Your task to perform on an android device: turn off location Image 0: 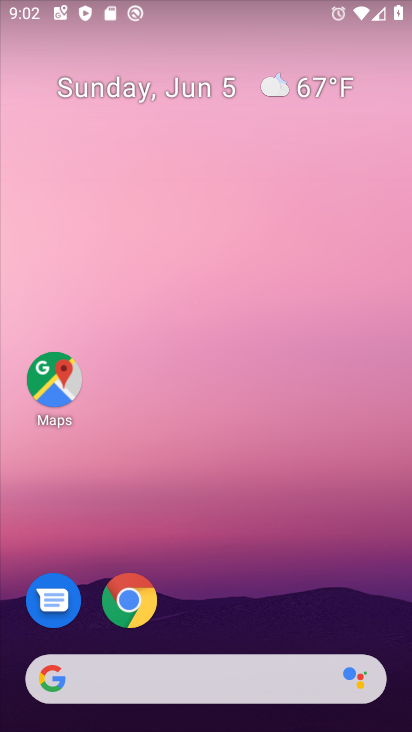
Step 0: drag from (383, 619) to (326, 107)
Your task to perform on an android device: turn off location Image 1: 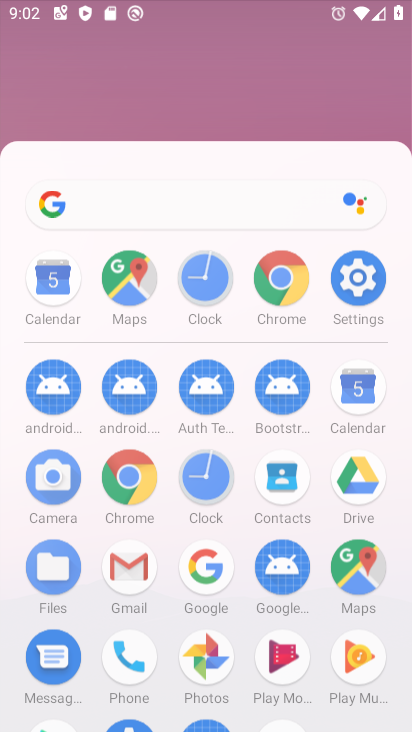
Step 1: click (297, 35)
Your task to perform on an android device: turn off location Image 2: 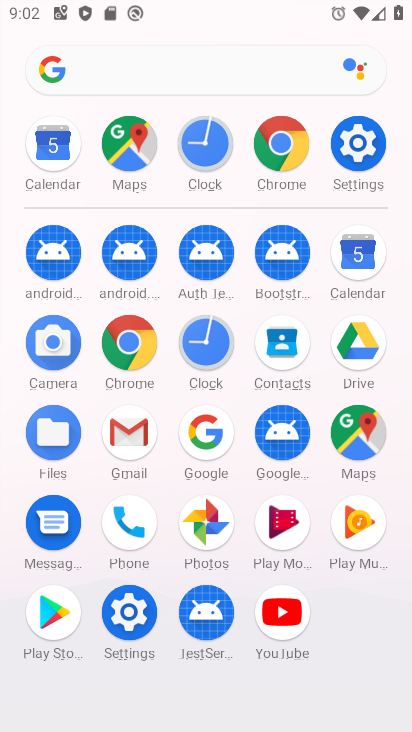
Step 2: click (115, 615)
Your task to perform on an android device: turn off location Image 3: 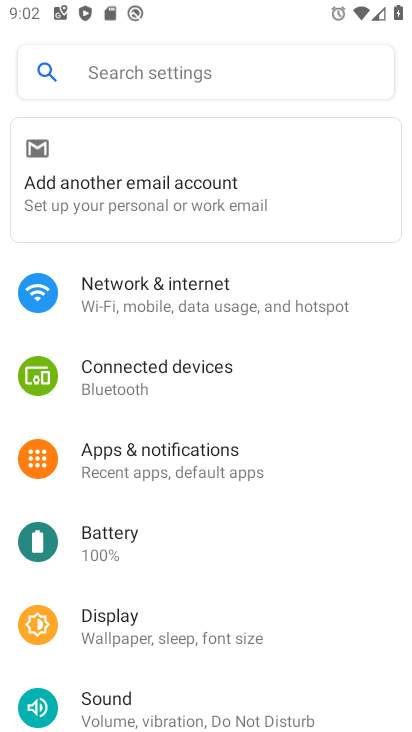
Step 3: click (159, 657)
Your task to perform on an android device: turn off location Image 4: 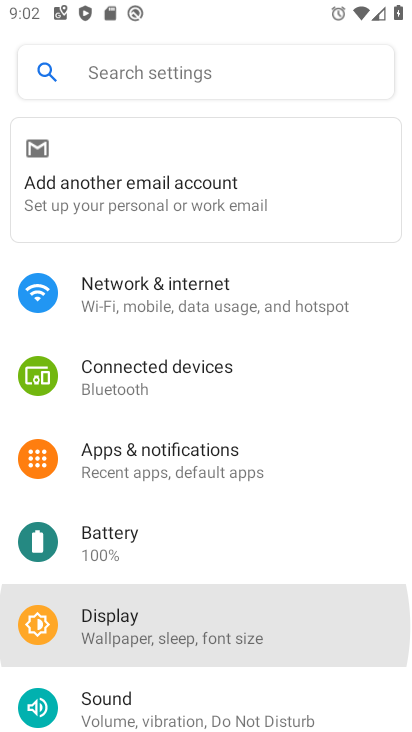
Step 4: drag from (202, 457) to (199, 346)
Your task to perform on an android device: turn off location Image 5: 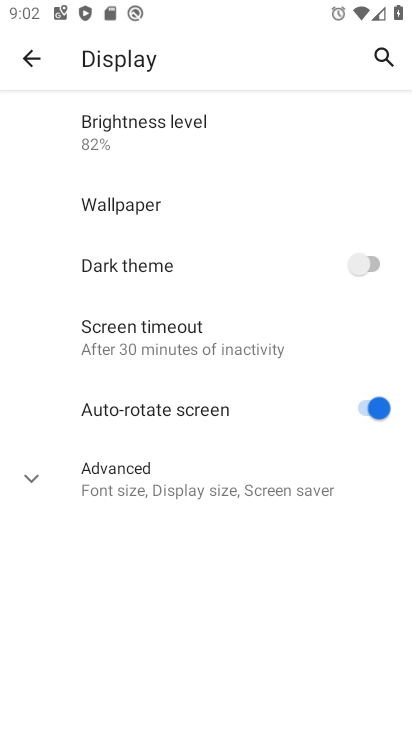
Step 5: press home button
Your task to perform on an android device: turn off location Image 6: 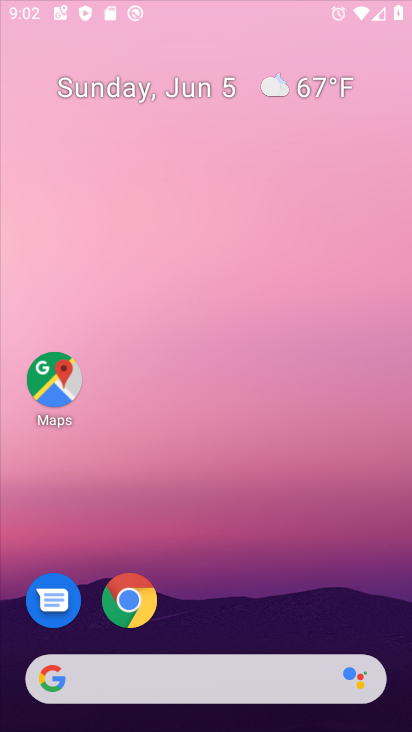
Step 6: drag from (357, 638) to (263, 32)
Your task to perform on an android device: turn off location Image 7: 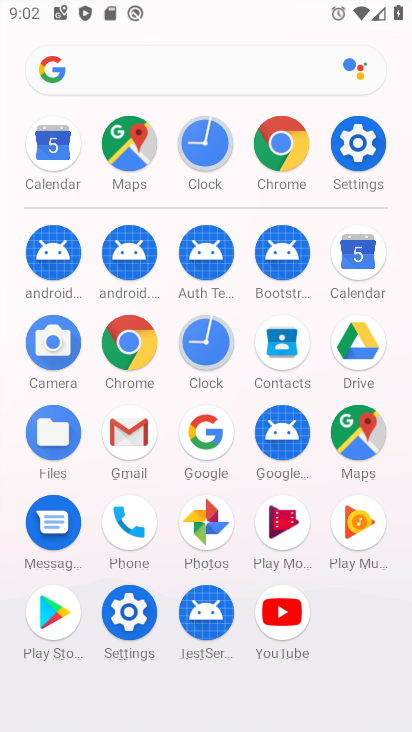
Step 7: click (350, 144)
Your task to perform on an android device: turn off location Image 8: 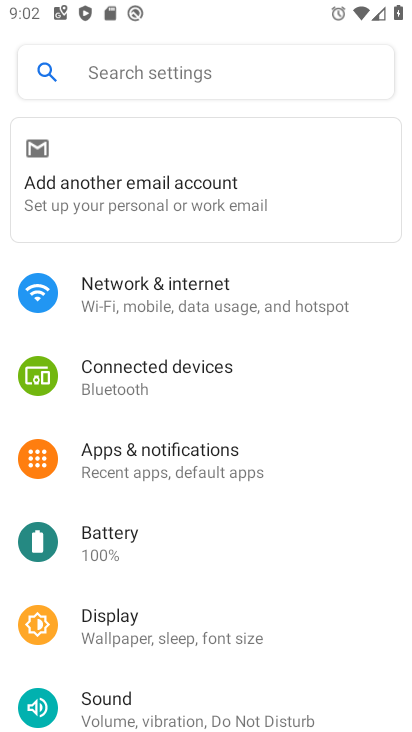
Step 8: drag from (172, 695) to (187, 238)
Your task to perform on an android device: turn off location Image 9: 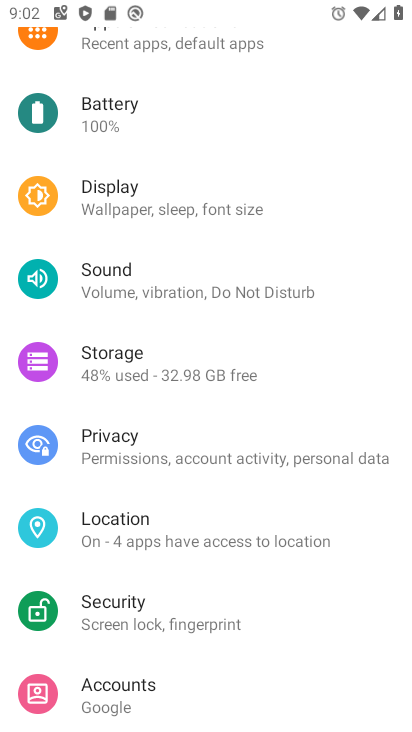
Step 9: click (117, 542)
Your task to perform on an android device: turn off location Image 10: 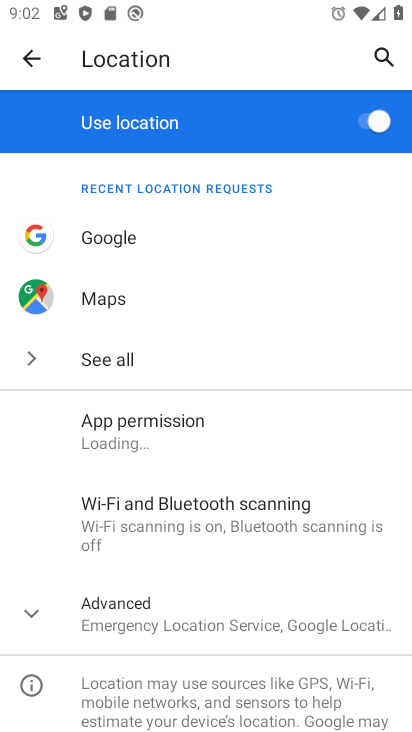
Step 10: click (363, 117)
Your task to perform on an android device: turn off location Image 11: 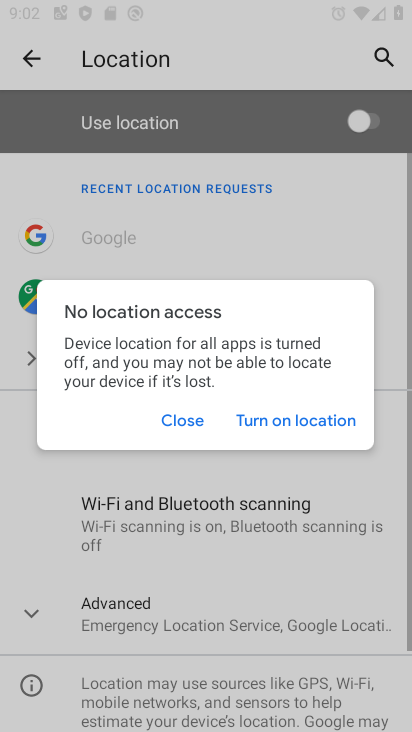
Step 11: task complete